Your task to perform on an android device: Go to Yahoo.com Image 0: 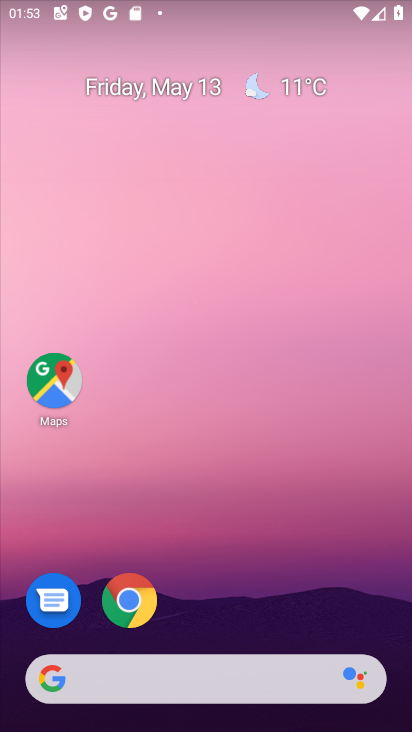
Step 0: drag from (217, 594) to (372, 84)
Your task to perform on an android device: Go to Yahoo.com Image 1: 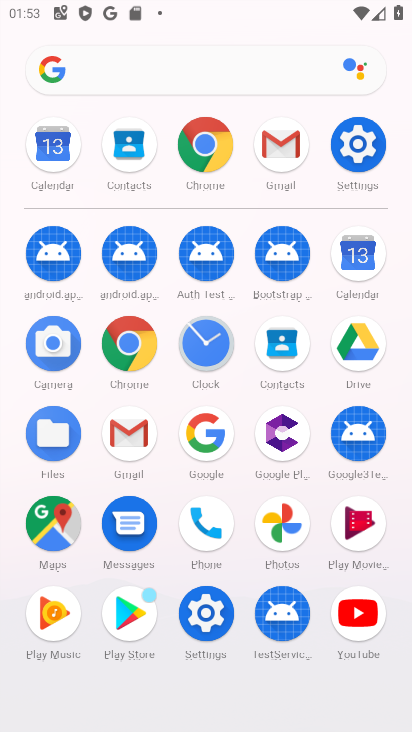
Step 1: click (171, 60)
Your task to perform on an android device: Go to Yahoo.com Image 2: 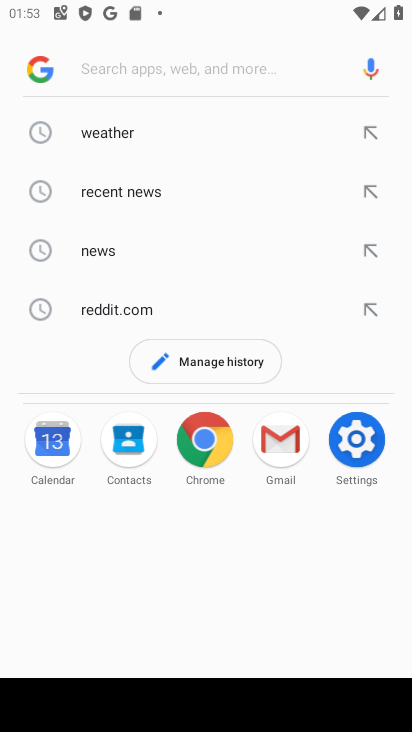
Step 2: type "yahoo.com"
Your task to perform on an android device: Go to Yahoo.com Image 3: 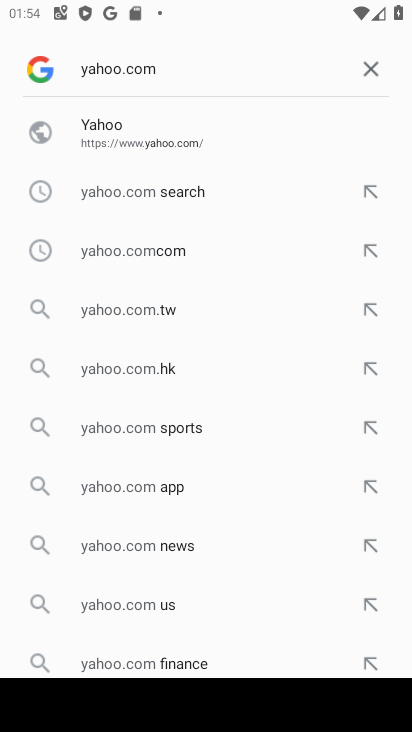
Step 3: click (179, 126)
Your task to perform on an android device: Go to Yahoo.com Image 4: 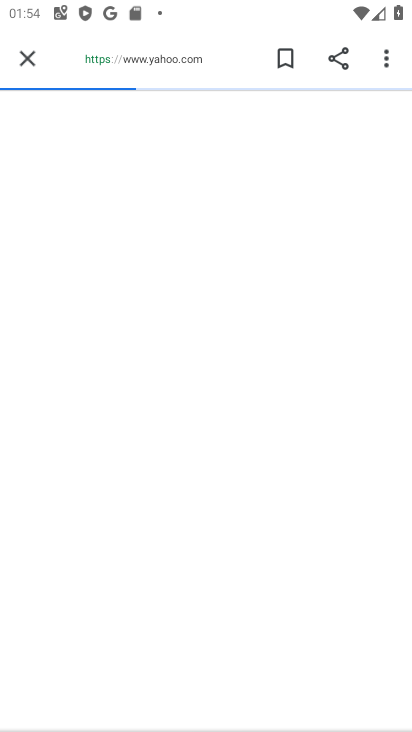
Step 4: task complete